Your task to perform on an android device: Go to Google Image 0: 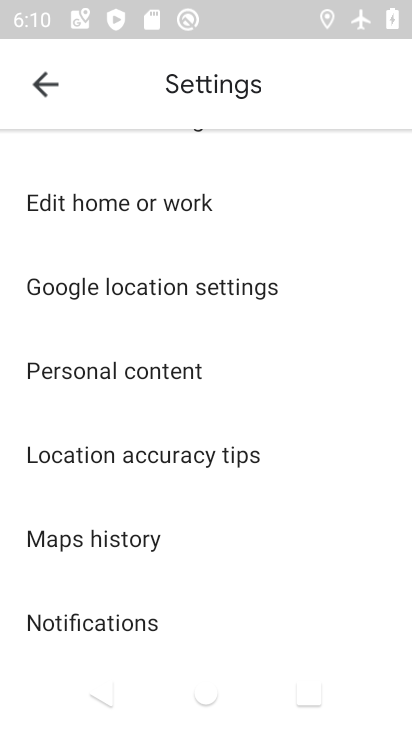
Step 0: drag from (218, 571) to (258, 218)
Your task to perform on an android device: Go to Google Image 1: 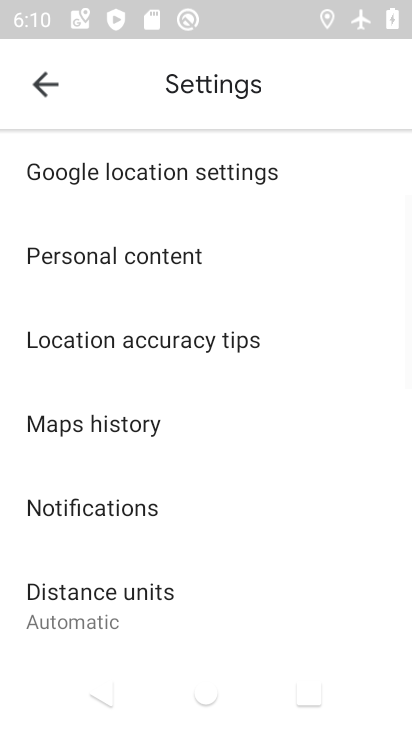
Step 1: drag from (223, 273) to (228, 664)
Your task to perform on an android device: Go to Google Image 2: 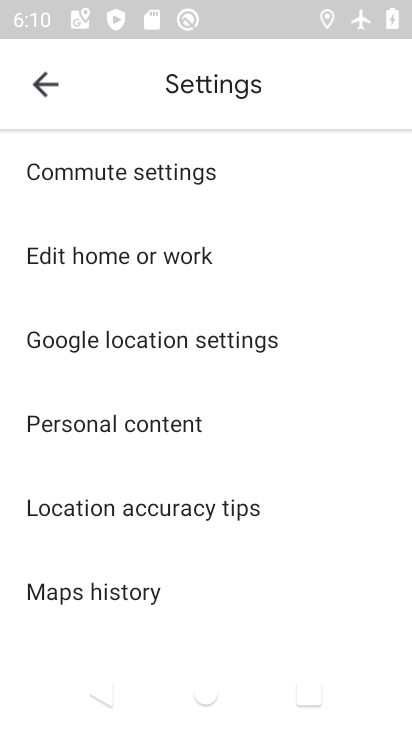
Step 2: drag from (258, 583) to (254, 267)
Your task to perform on an android device: Go to Google Image 3: 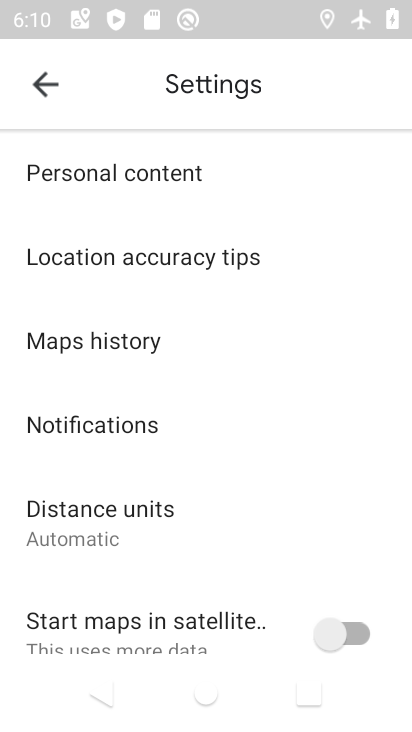
Step 3: drag from (263, 105) to (278, 653)
Your task to perform on an android device: Go to Google Image 4: 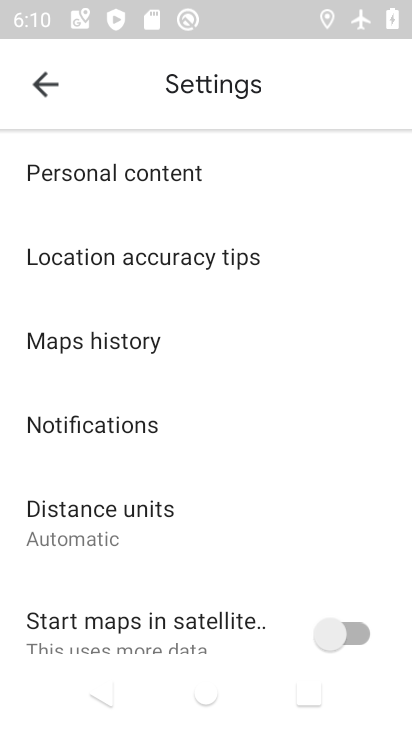
Step 4: drag from (225, 285) to (319, 652)
Your task to perform on an android device: Go to Google Image 5: 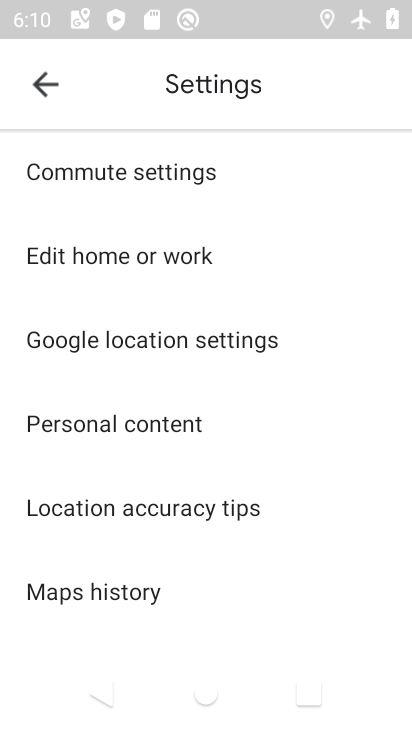
Step 5: drag from (213, 167) to (246, 554)
Your task to perform on an android device: Go to Google Image 6: 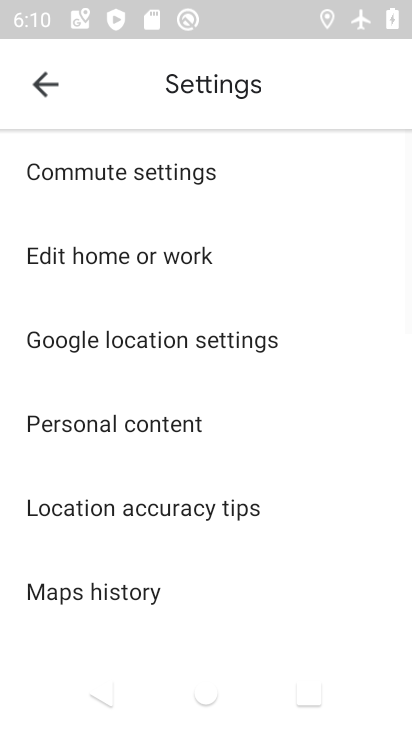
Step 6: drag from (214, 454) to (273, 162)
Your task to perform on an android device: Go to Google Image 7: 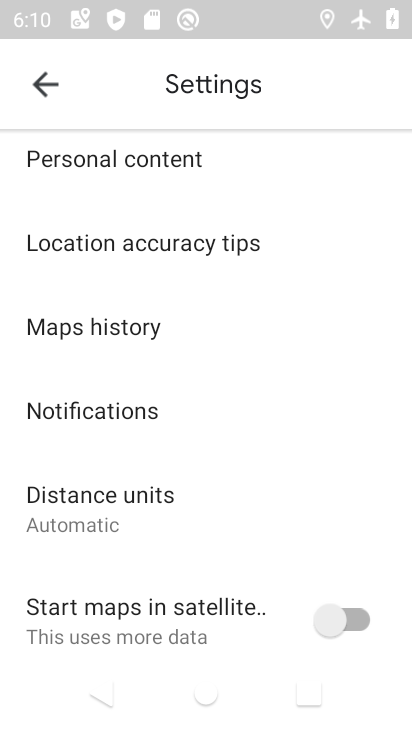
Step 7: click (53, 77)
Your task to perform on an android device: Go to Google Image 8: 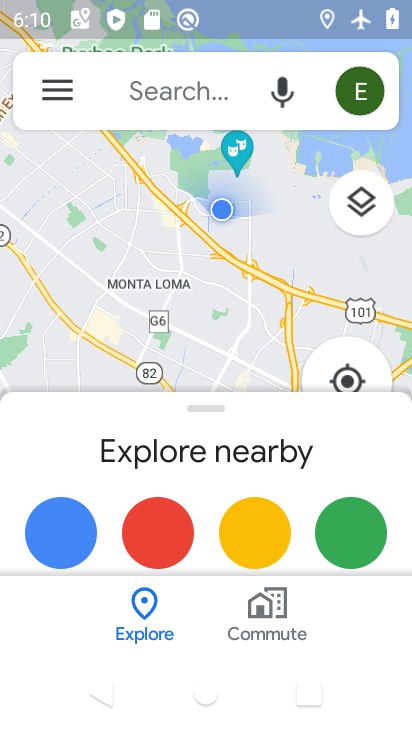
Step 8: drag from (197, 470) to (271, 234)
Your task to perform on an android device: Go to Google Image 9: 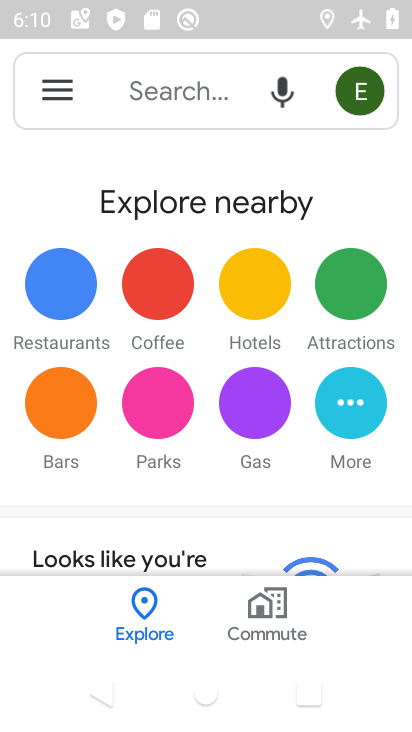
Step 9: drag from (191, 469) to (222, 215)
Your task to perform on an android device: Go to Google Image 10: 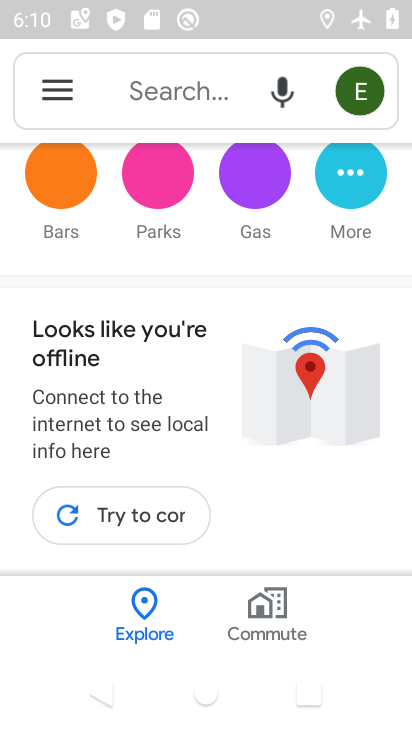
Step 10: drag from (217, 366) to (230, 267)
Your task to perform on an android device: Go to Google Image 11: 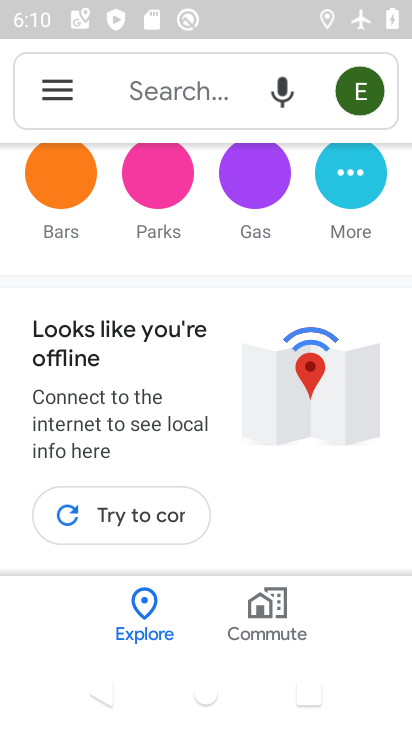
Step 11: drag from (202, 342) to (208, 507)
Your task to perform on an android device: Go to Google Image 12: 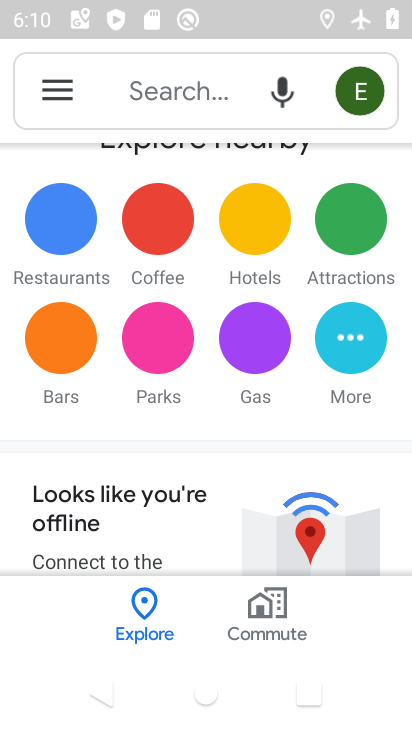
Step 12: drag from (200, 159) to (210, 429)
Your task to perform on an android device: Go to Google Image 13: 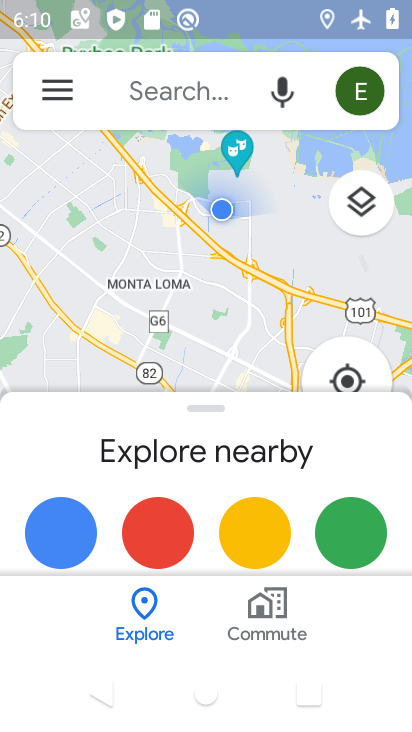
Step 13: drag from (229, 456) to (273, 115)
Your task to perform on an android device: Go to Google Image 14: 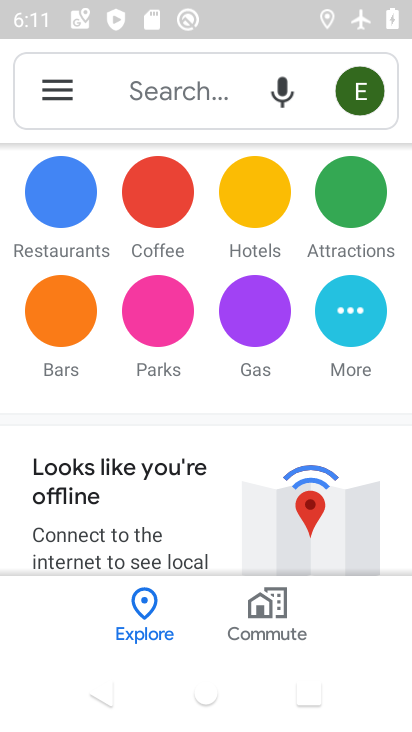
Step 14: press home button
Your task to perform on an android device: Go to Google Image 15: 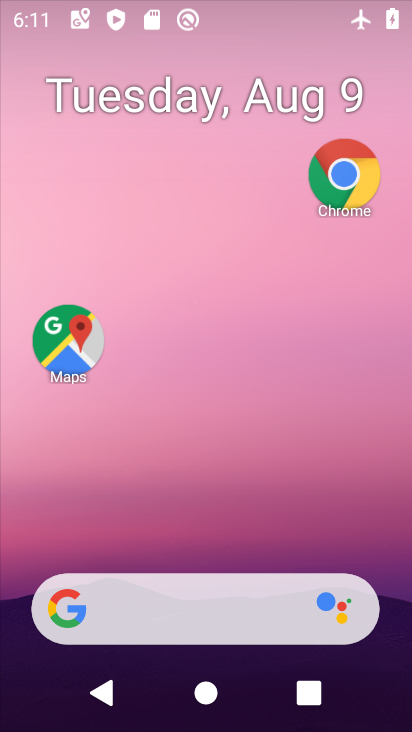
Step 15: drag from (222, 497) to (115, 2)
Your task to perform on an android device: Go to Google Image 16: 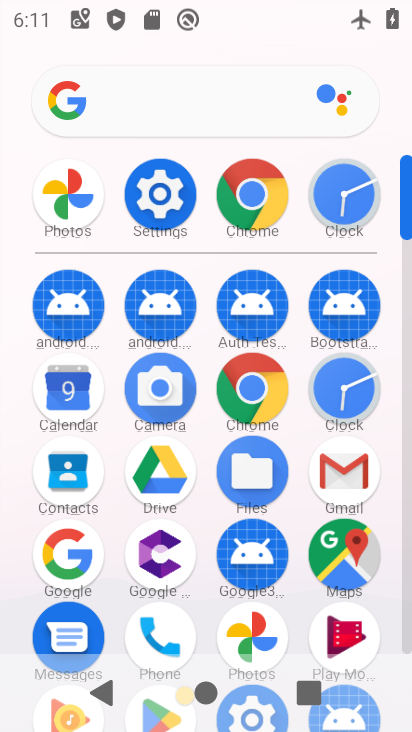
Step 16: click (87, 546)
Your task to perform on an android device: Go to Google Image 17: 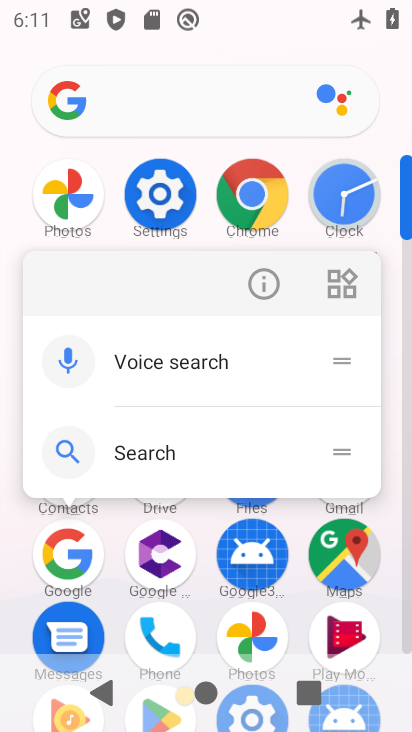
Step 17: click (263, 275)
Your task to perform on an android device: Go to Google Image 18: 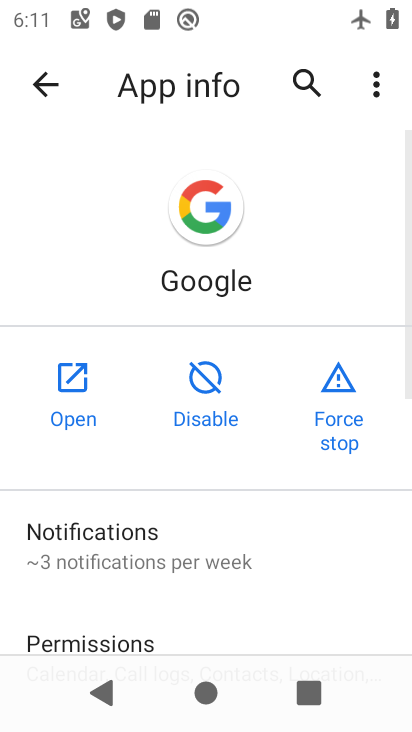
Step 18: click (91, 374)
Your task to perform on an android device: Go to Google Image 19: 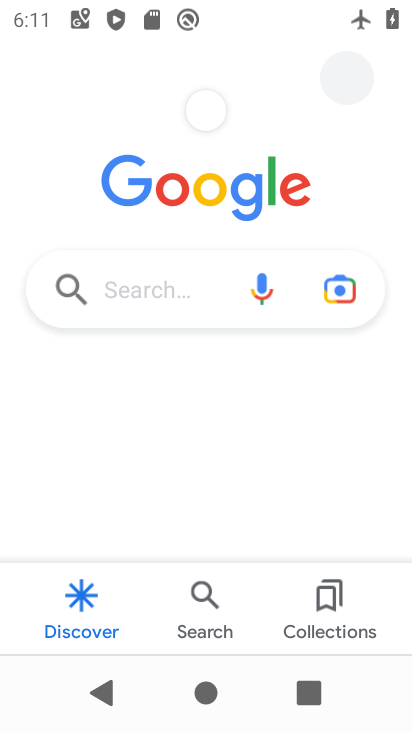
Step 19: task complete